Your task to perform on an android device: toggle sleep mode Image 0: 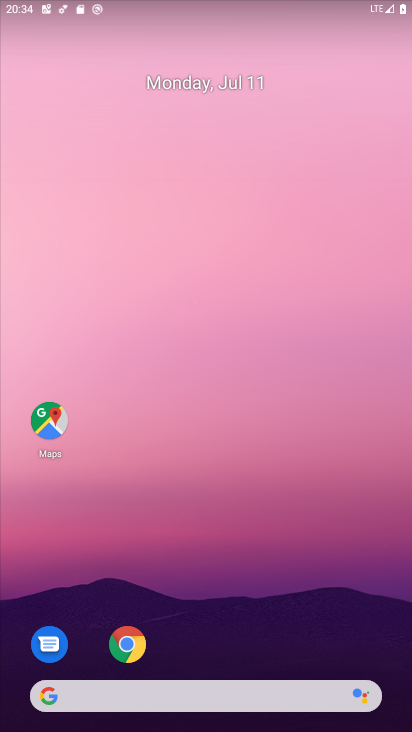
Step 0: drag from (258, 660) to (247, 154)
Your task to perform on an android device: toggle sleep mode Image 1: 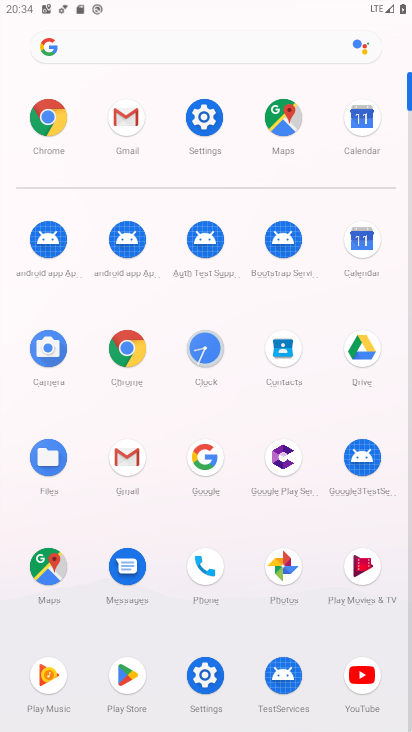
Step 1: click (209, 113)
Your task to perform on an android device: toggle sleep mode Image 2: 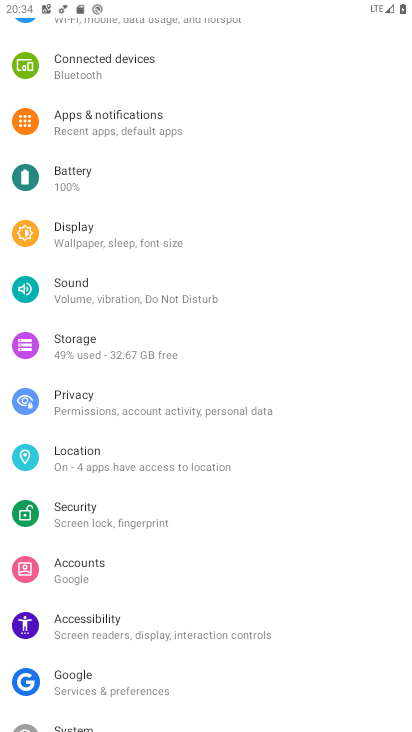
Step 2: task complete